Your task to perform on an android device: Open eBay Image 0: 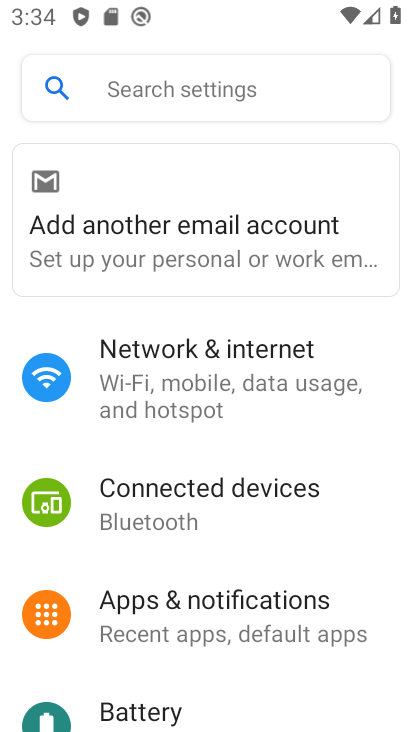
Step 0: press home button
Your task to perform on an android device: Open eBay Image 1: 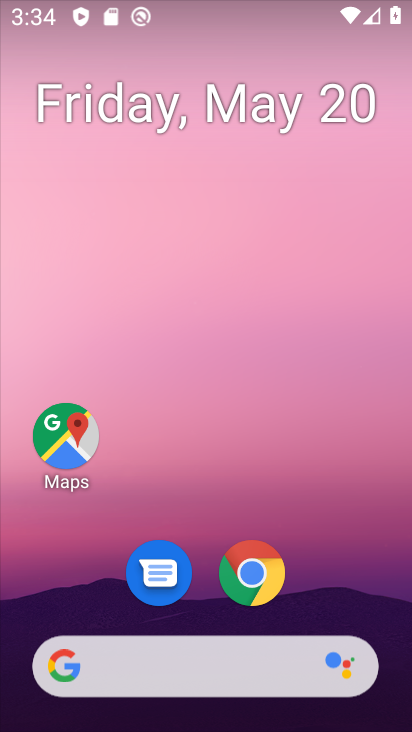
Step 1: click (261, 572)
Your task to perform on an android device: Open eBay Image 2: 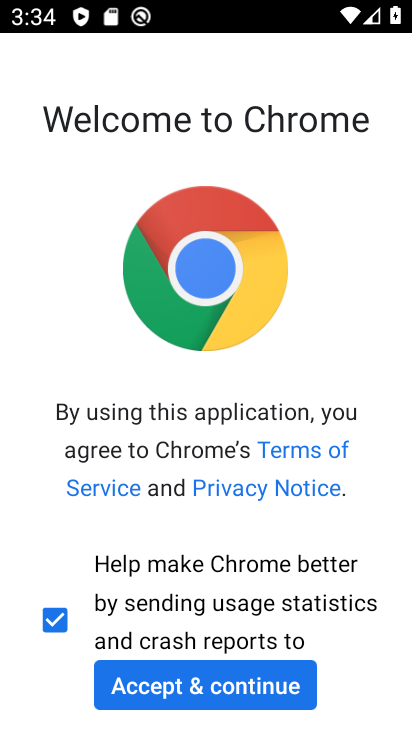
Step 2: click (288, 676)
Your task to perform on an android device: Open eBay Image 3: 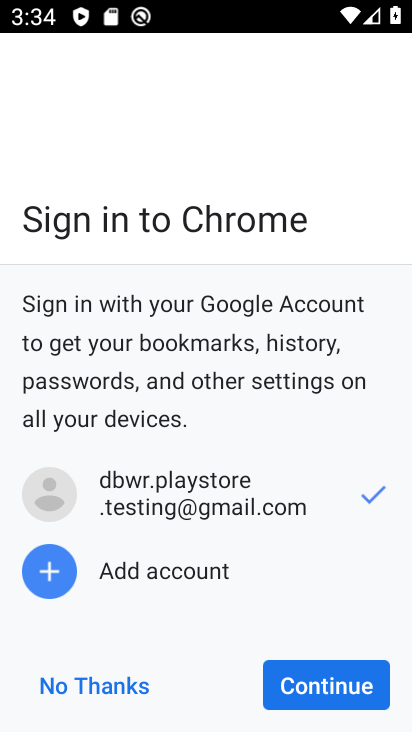
Step 3: click (288, 676)
Your task to perform on an android device: Open eBay Image 4: 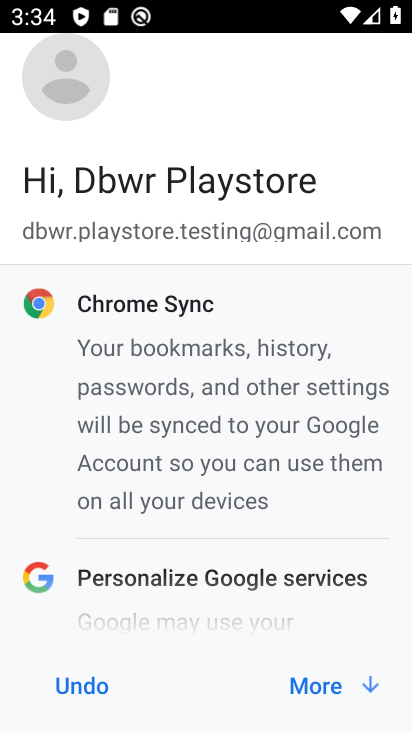
Step 4: click (288, 676)
Your task to perform on an android device: Open eBay Image 5: 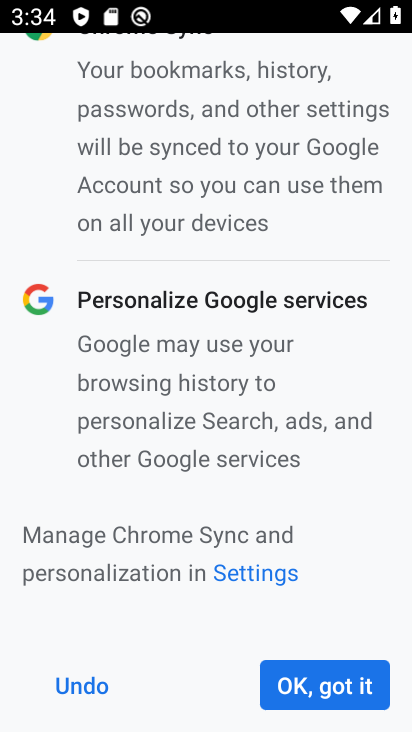
Step 5: click (288, 676)
Your task to perform on an android device: Open eBay Image 6: 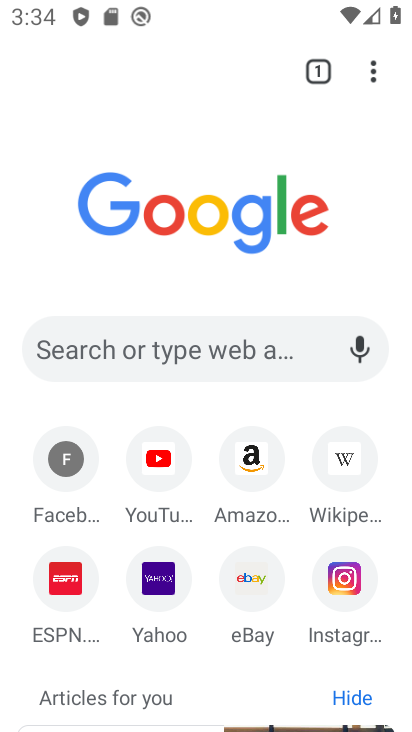
Step 6: click (260, 584)
Your task to perform on an android device: Open eBay Image 7: 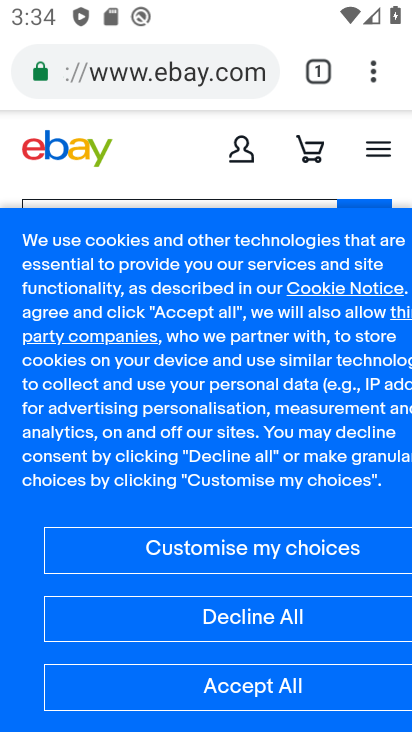
Step 7: task complete